Your task to perform on an android device: turn off airplane mode Image 0: 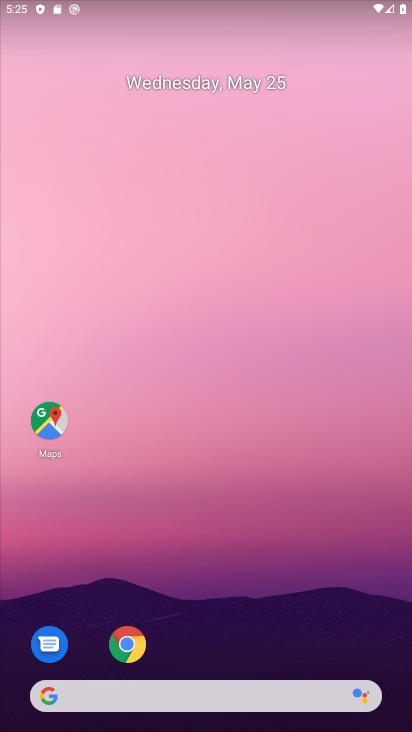
Step 0: drag from (350, 4) to (308, 618)
Your task to perform on an android device: turn off airplane mode Image 1: 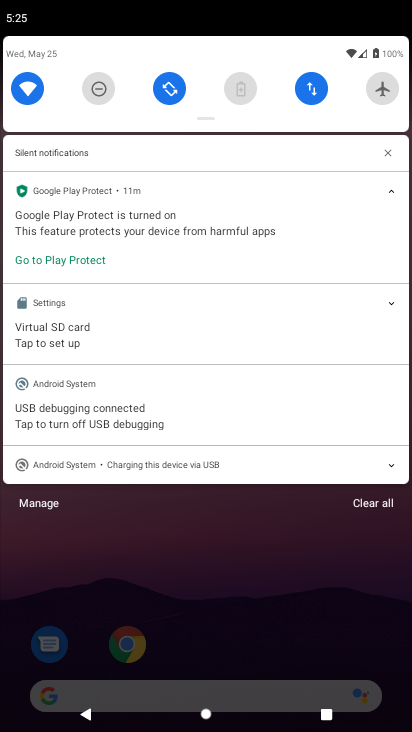
Step 1: task complete